Your task to perform on an android device: Check the news Image 0: 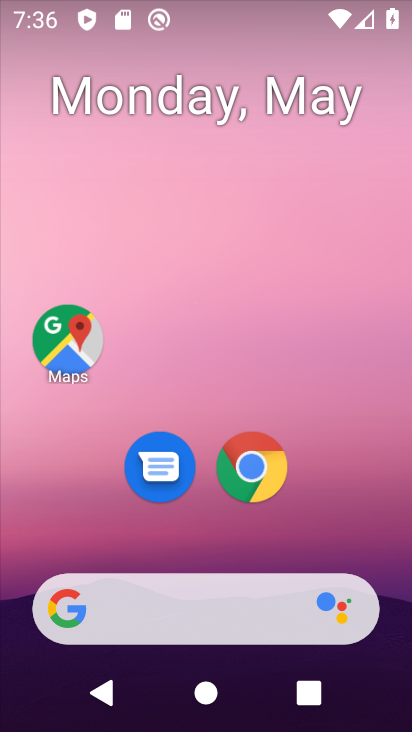
Step 0: drag from (6, 232) to (405, 335)
Your task to perform on an android device: Check the news Image 1: 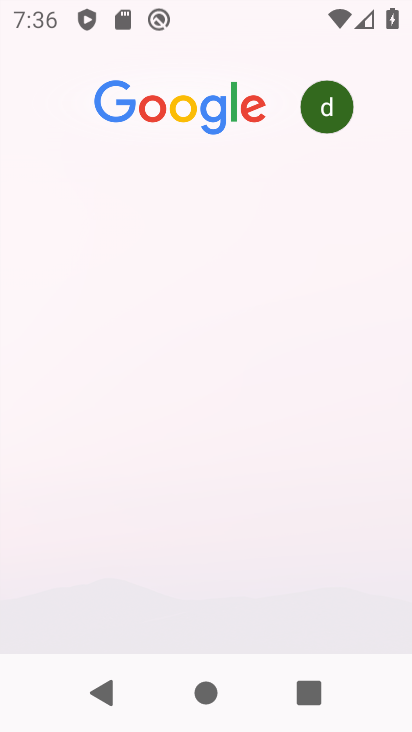
Step 1: task complete